Your task to perform on an android device: change the clock display to show seconds Image 0: 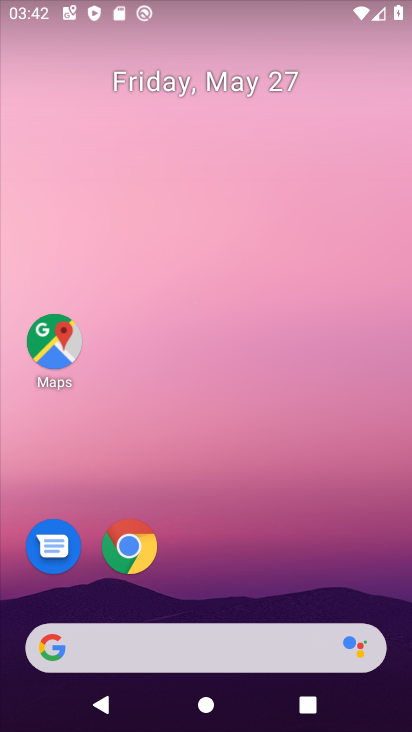
Step 0: drag from (392, 686) to (364, 212)
Your task to perform on an android device: change the clock display to show seconds Image 1: 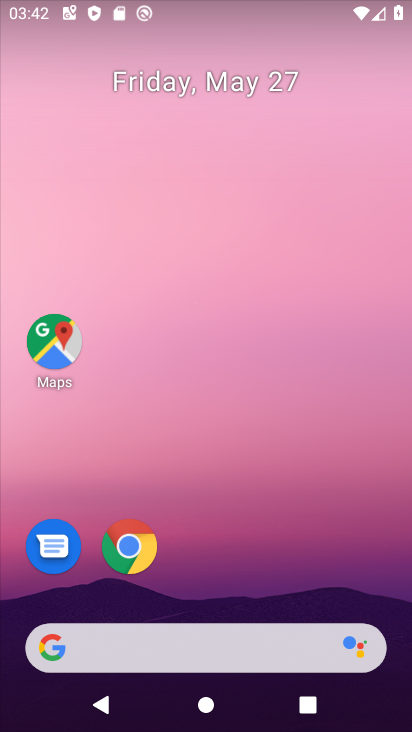
Step 1: drag from (389, 589) to (342, 125)
Your task to perform on an android device: change the clock display to show seconds Image 2: 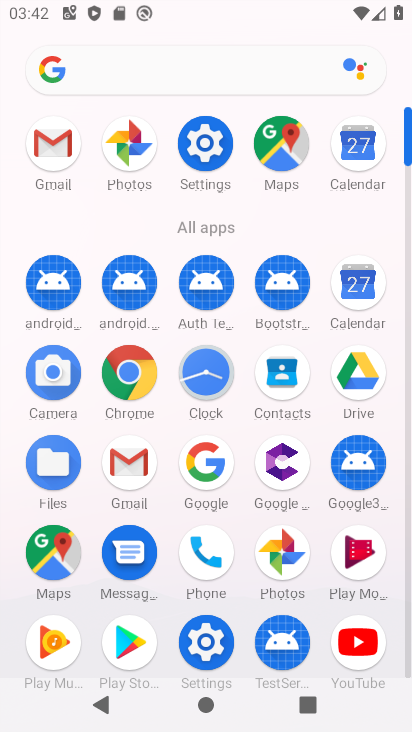
Step 2: click (193, 139)
Your task to perform on an android device: change the clock display to show seconds Image 3: 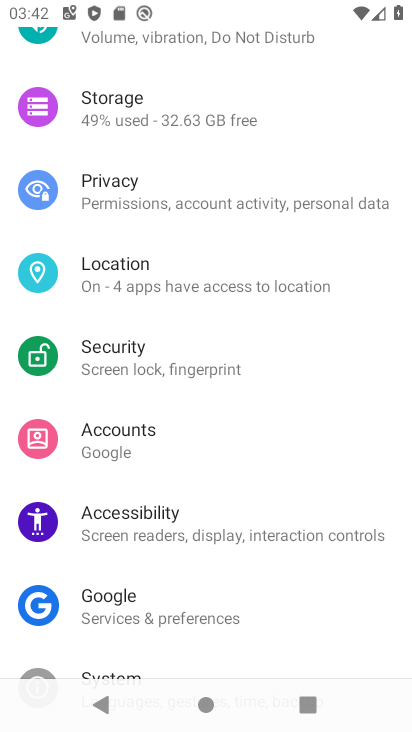
Step 3: press home button
Your task to perform on an android device: change the clock display to show seconds Image 4: 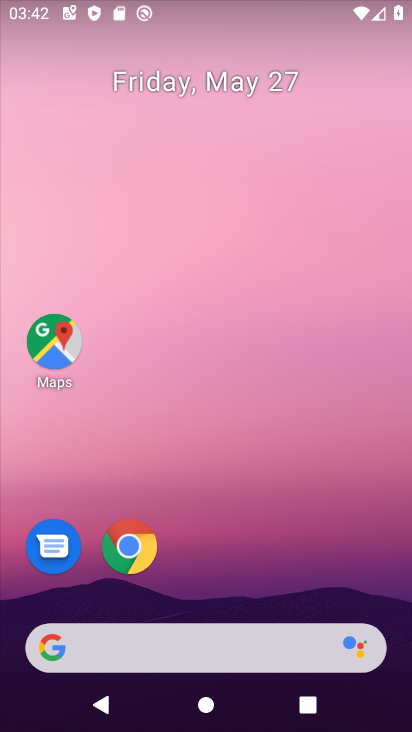
Step 4: drag from (394, 653) to (357, 211)
Your task to perform on an android device: change the clock display to show seconds Image 5: 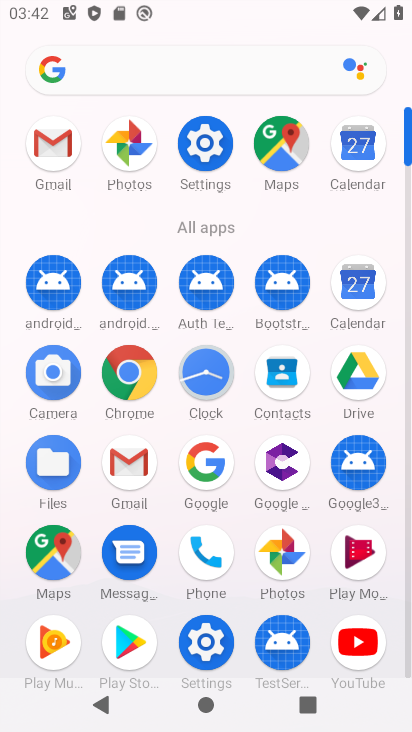
Step 5: click (205, 372)
Your task to perform on an android device: change the clock display to show seconds Image 6: 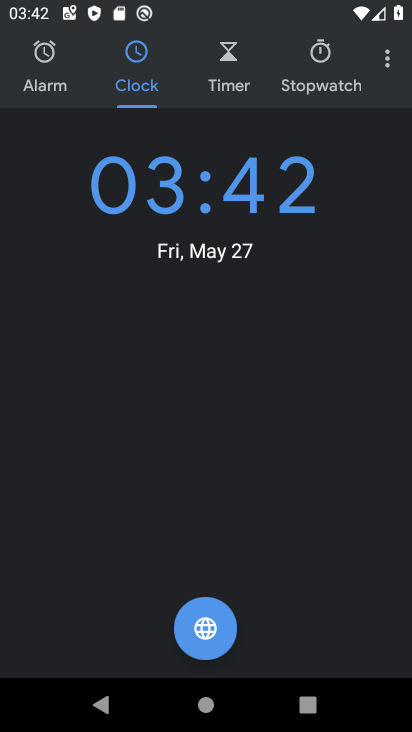
Step 6: click (385, 59)
Your task to perform on an android device: change the clock display to show seconds Image 7: 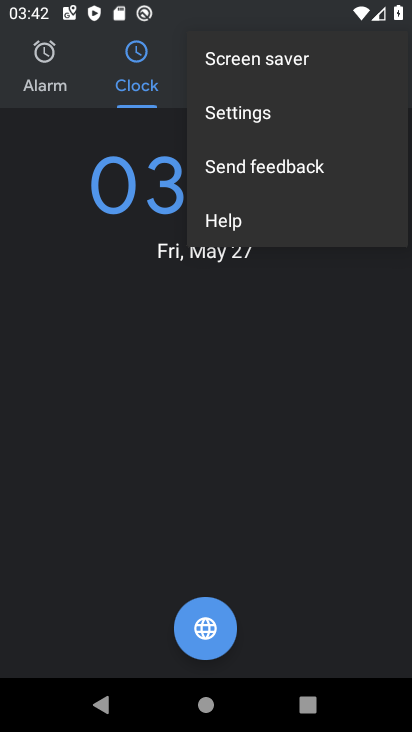
Step 7: click (242, 117)
Your task to perform on an android device: change the clock display to show seconds Image 8: 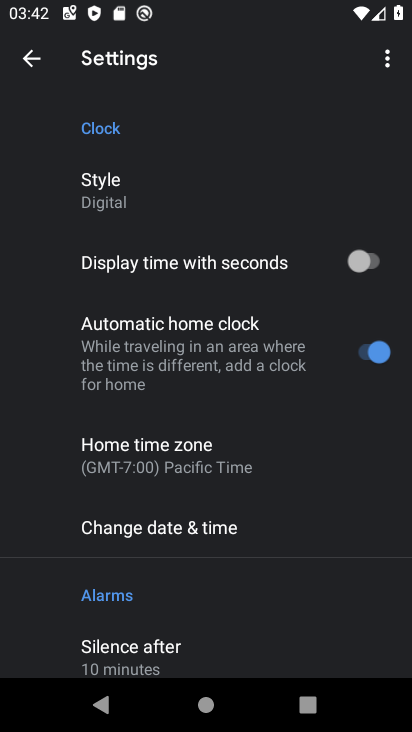
Step 8: click (358, 263)
Your task to perform on an android device: change the clock display to show seconds Image 9: 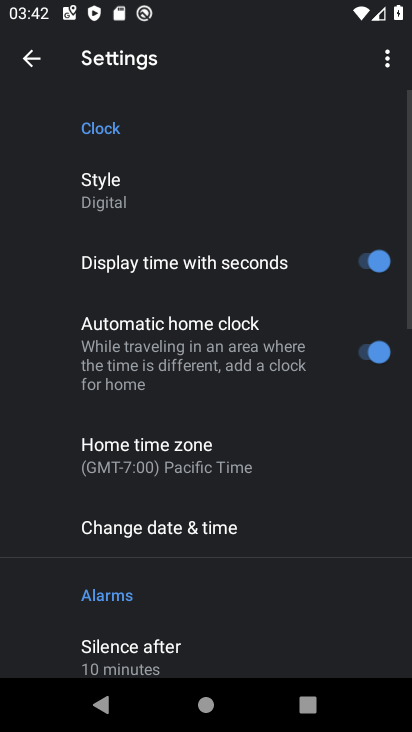
Step 9: task complete